Your task to perform on an android device: change your default location settings in chrome Image 0: 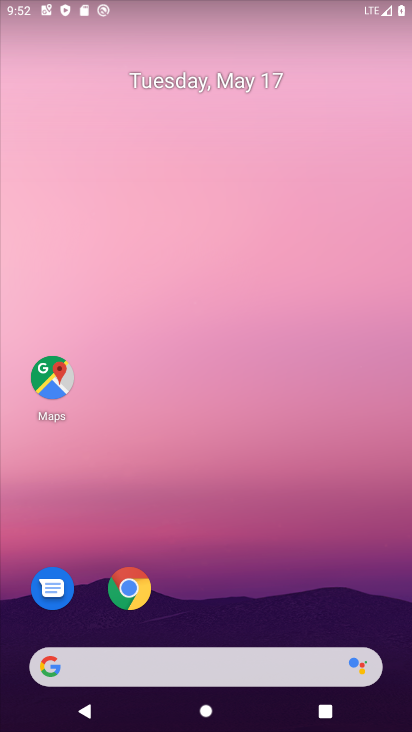
Step 0: drag from (204, 625) to (189, 4)
Your task to perform on an android device: change your default location settings in chrome Image 1: 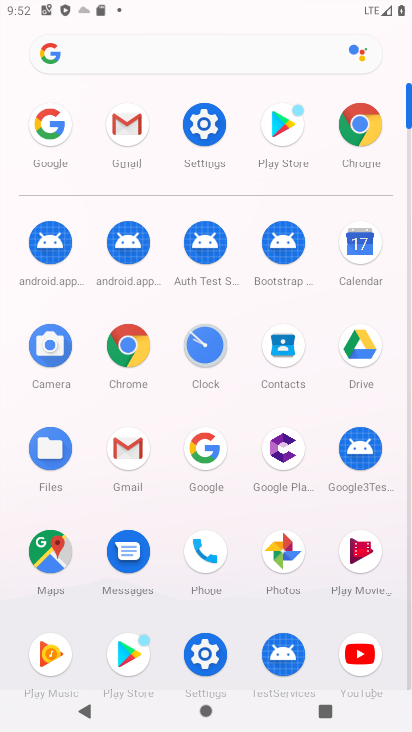
Step 1: click (120, 326)
Your task to perform on an android device: change your default location settings in chrome Image 2: 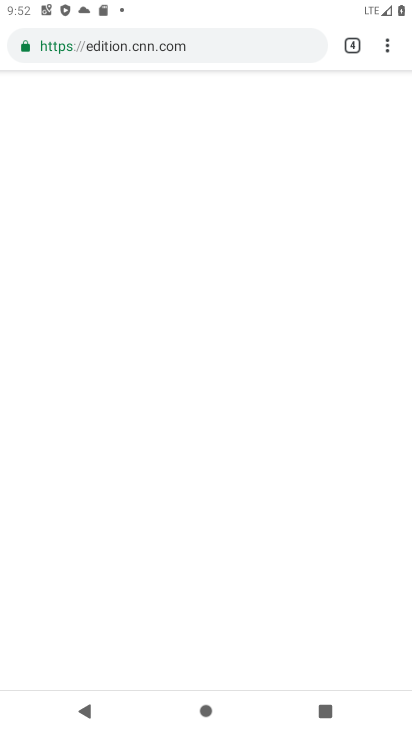
Step 2: click (385, 42)
Your task to perform on an android device: change your default location settings in chrome Image 3: 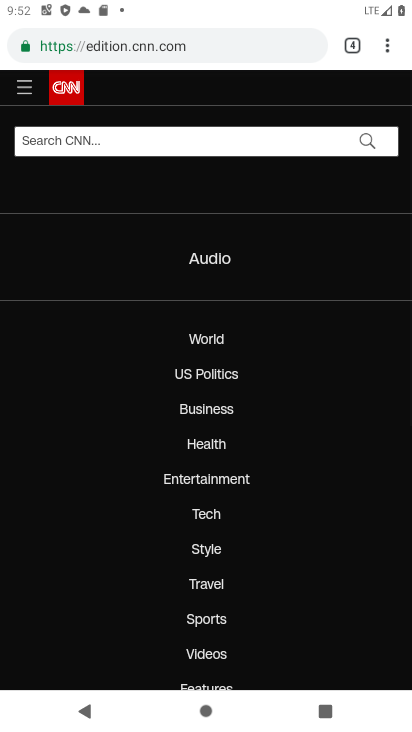
Step 3: drag from (384, 44) to (232, 507)
Your task to perform on an android device: change your default location settings in chrome Image 4: 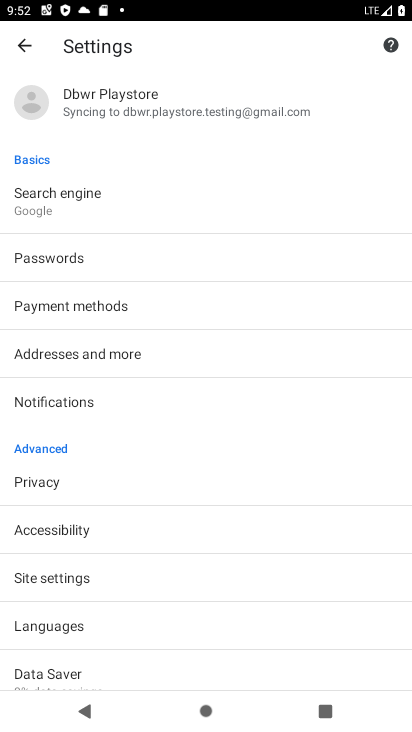
Step 4: click (67, 580)
Your task to perform on an android device: change your default location settings in chrome Image 5: 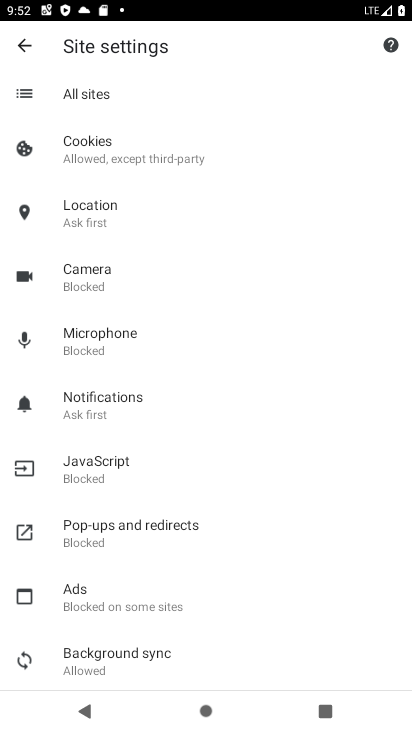
Step 5: click (137, 204)
Your task to perform on an android device: change your default location settings in chrome Image 6: 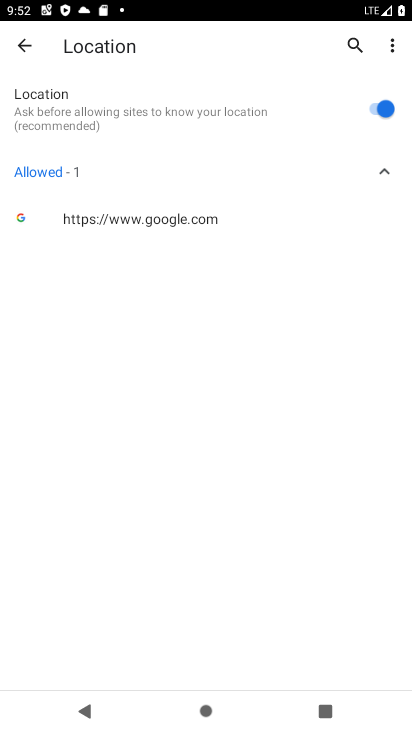
Step 6: task complete